Your task to perform on an android device: uninstall "Google Photos" Image 0: 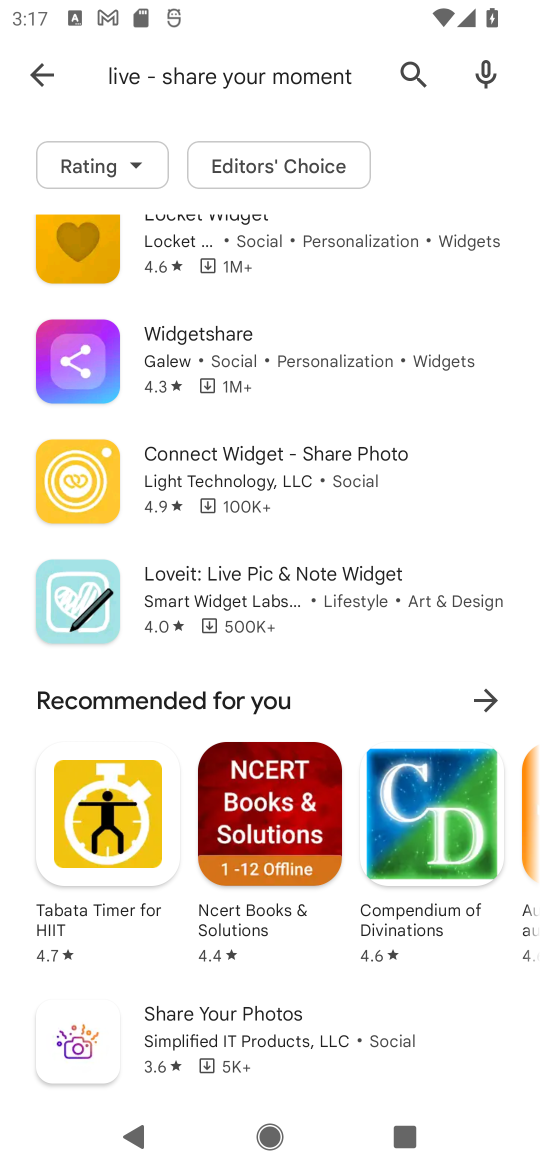
Step 0: click (415, 68)
Your task to perform on an android device: uninstall "Google Photos" Image 1: 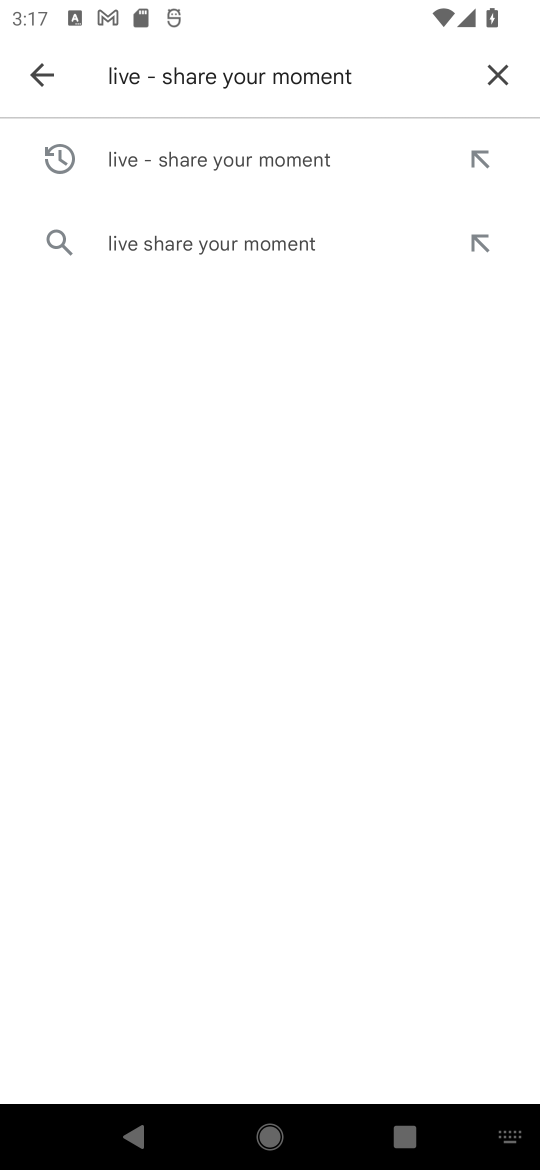
Step 1: click (485, 76)
Your task to perform on an android device: uninstall "Google Photos" Image 2: 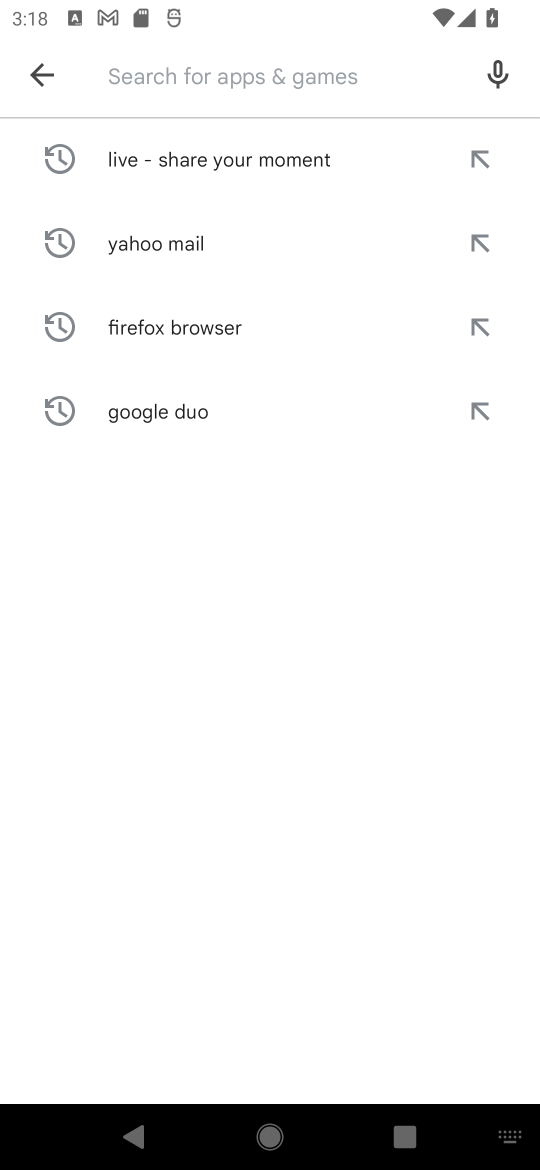
Step 2: type "Google Photos"
Your task to perform on an android device: uninstall "Google Photos" Image 3: 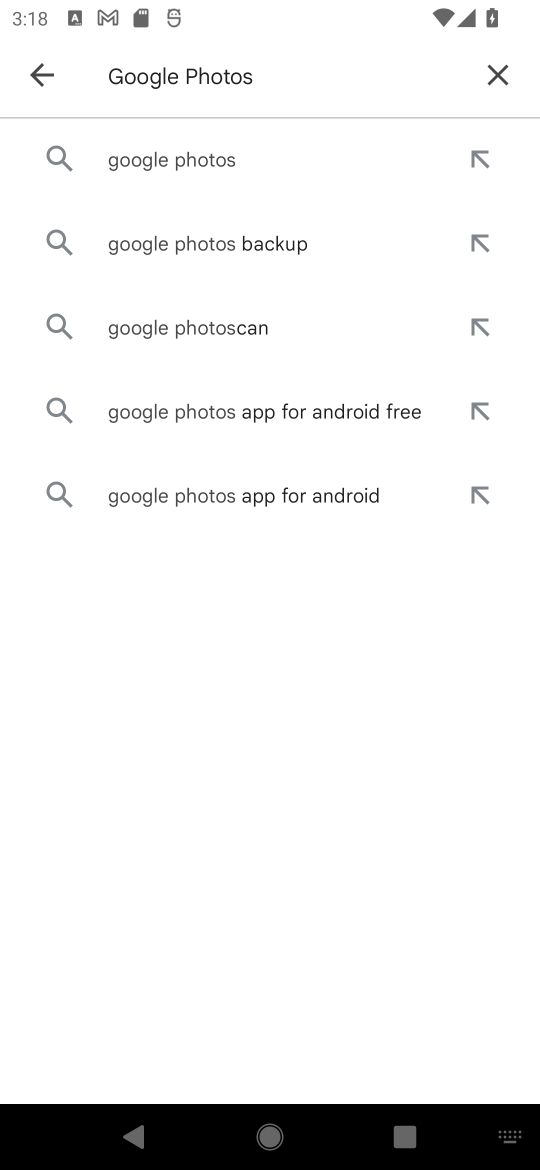
Step 3: click (194, 154)
Your task to perform on an android device: uninstall "Google Photos" Image 4: 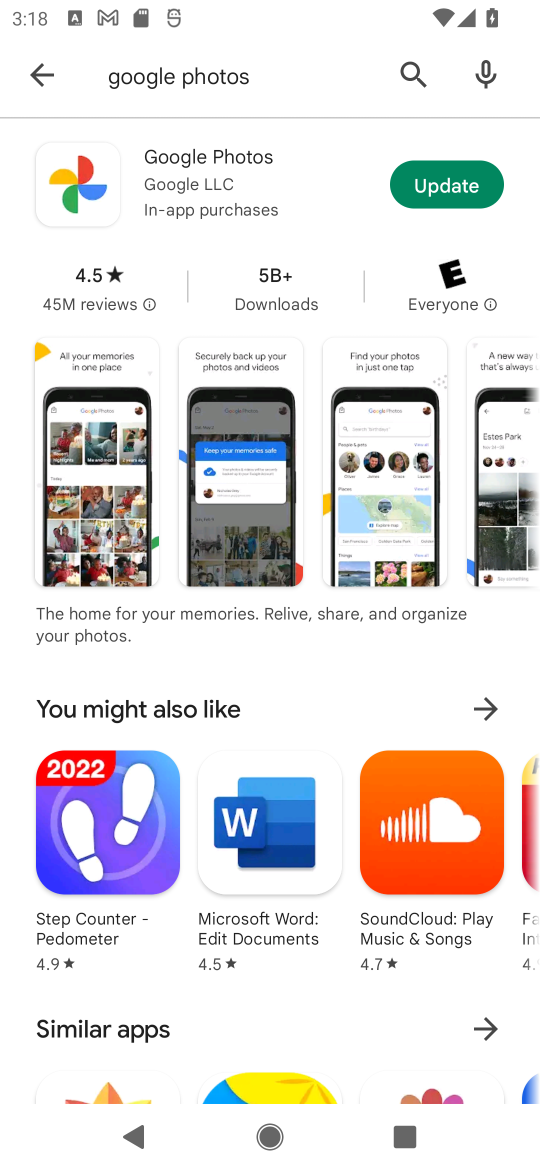
Step 4: click (155, 172)
Your task to perform on an android device: uninstall "Google Photos" Image 5: 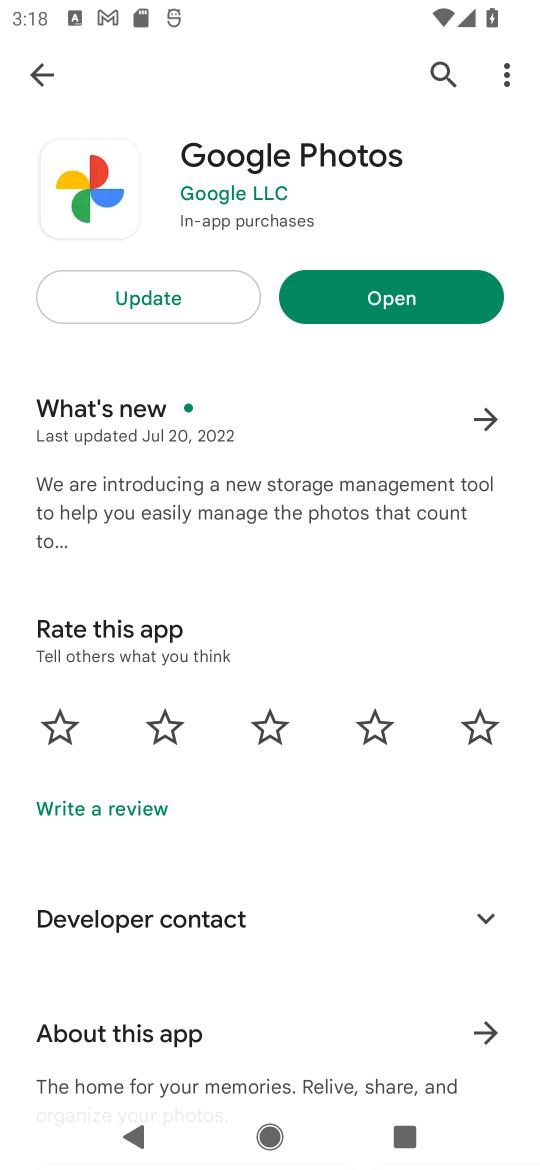
Step 5: task complete